Your task to perform on an android device: turn on the 12-hour format for clock Image 0: 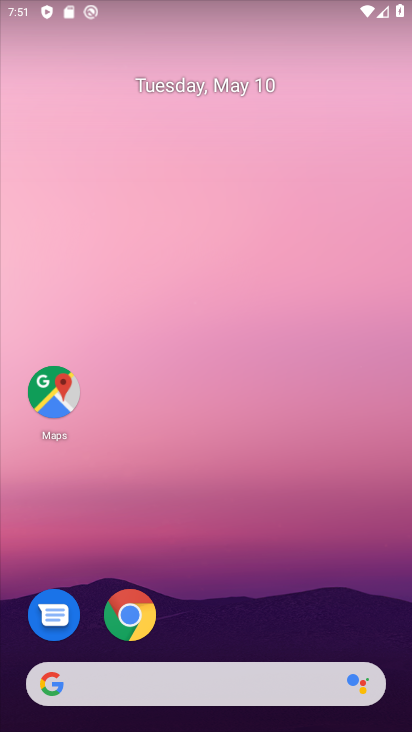
Step 0: drag from (189, 626) to (305, 257)
Your task to perform on an android device: turn on the 12-hour format for clock Image 1: 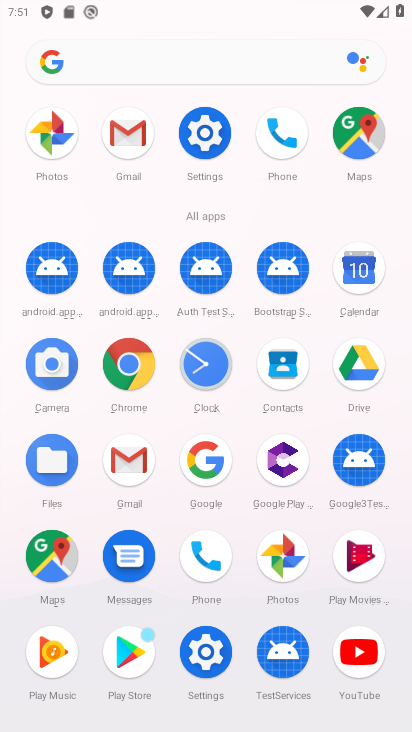
Step 1: click (200, 367)
Your task to perform on an android device: turn on the 12-hour format for clock Image 2: 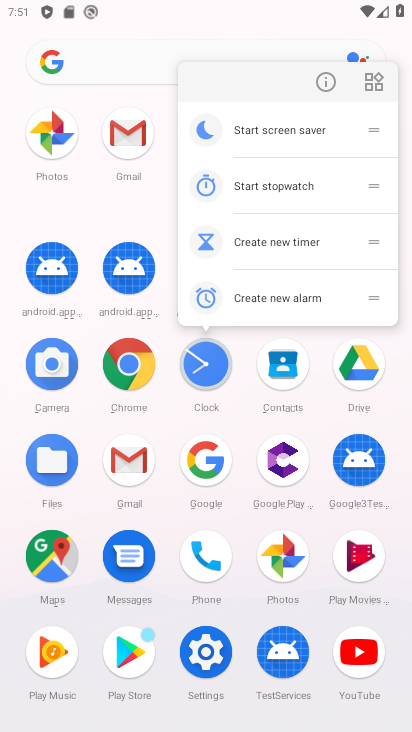
Step 2: click (325, 84)
Your task to perform on an android device: turn on the 12-hour format for clock Image 3: 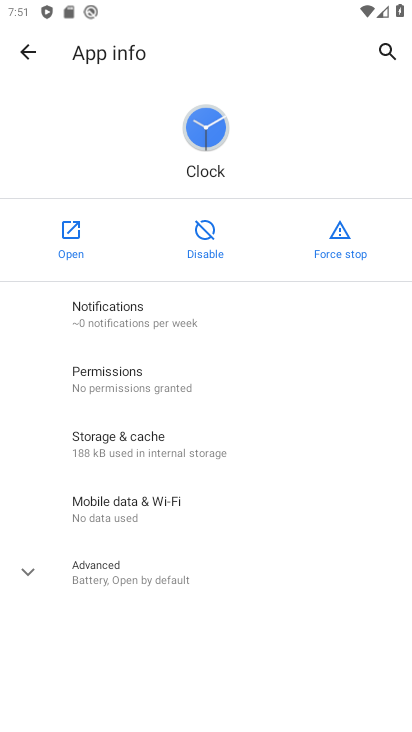
Step 3: click (76, 232)
Your task to perform on an android device: turn on the 12-hour format for clock Image 4: 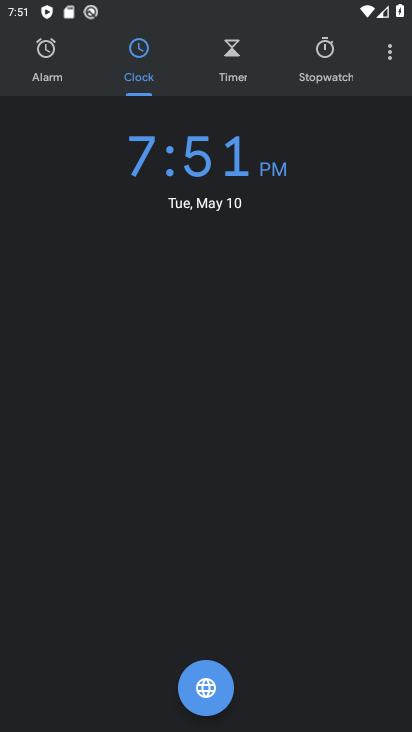
Step 4: click (330, 60)
Your task to perform on an android device: turn on the 12-hour format for clock Image 5: 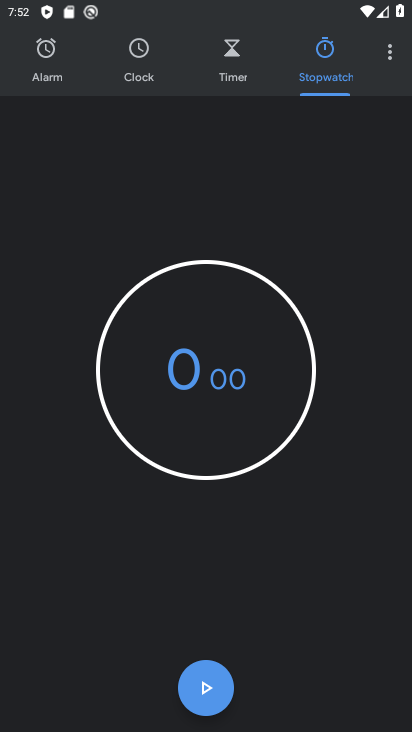
Step 5: click (393, 50)
Your task to perform on an android device: turn on the 12-hour format for clock Image 6: 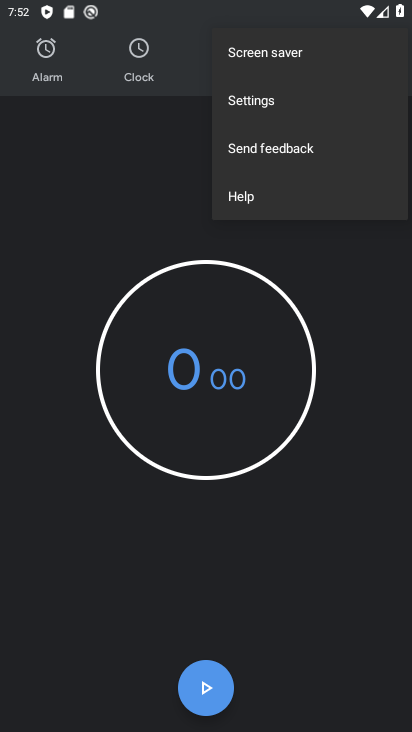
Step 6: click (291, 92)
Your task to perform on an android device: turn on the 12-hour format for clock Image 7: 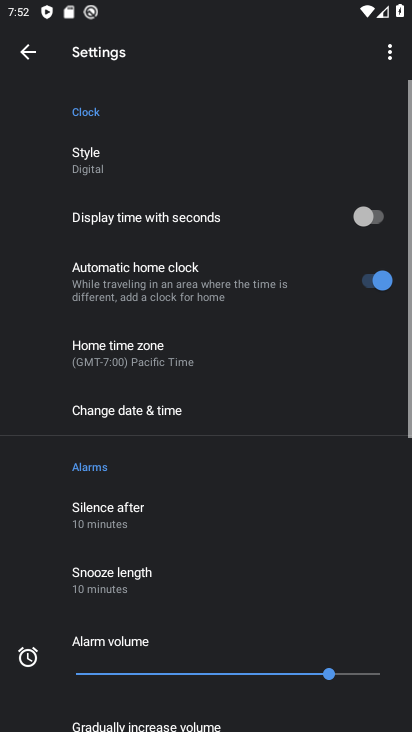
Step 7: drag from (238, 460) to (325, 214)
Your task to perform on an android device: turn on the 12-hour format for clock Image 8: 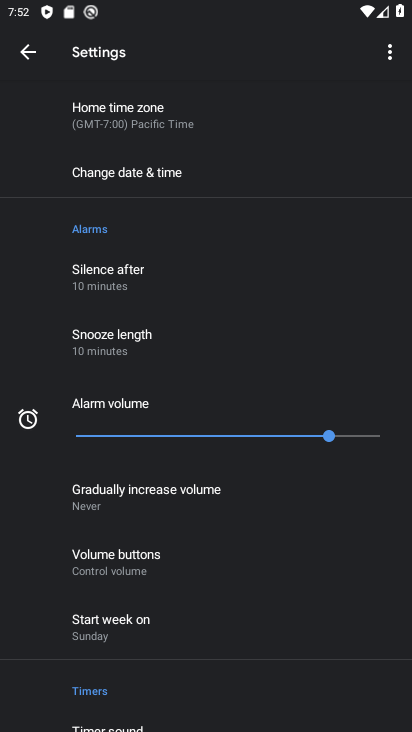
Step 8: drag from (229, 627) to (265, 303)
Your task to perform on an android device: turn on the 12-hour format for clock Image 9: 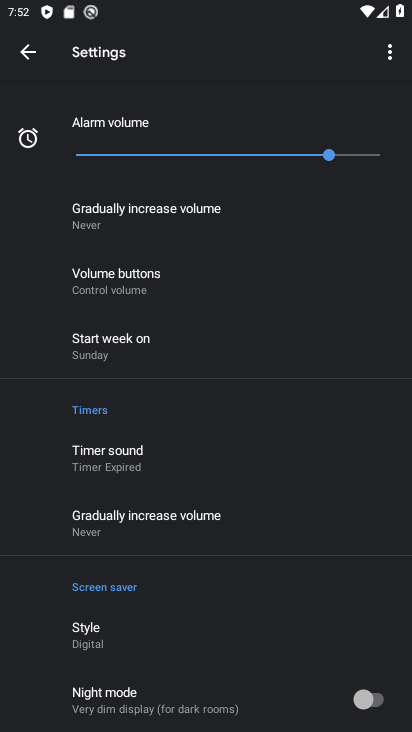
Step 9: drag from (247, 218) to (286, 680)
Your task to perform on an android device: turn on the 12-hour format for clock Image 10: 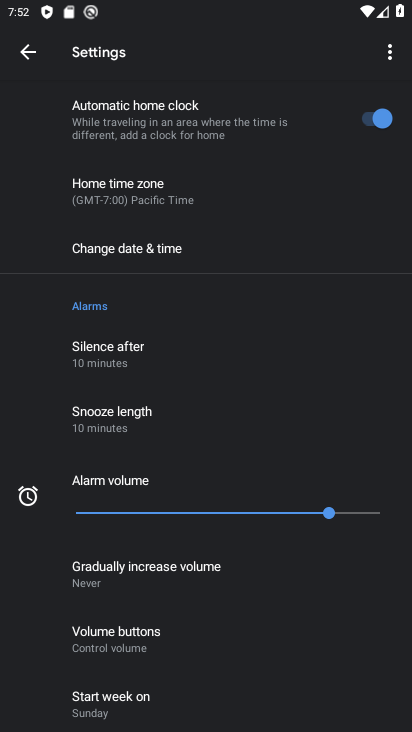
Step 10: click (148, 255)
Your task to perform on an android device: turn on the 12-hour format for clock Image 11: 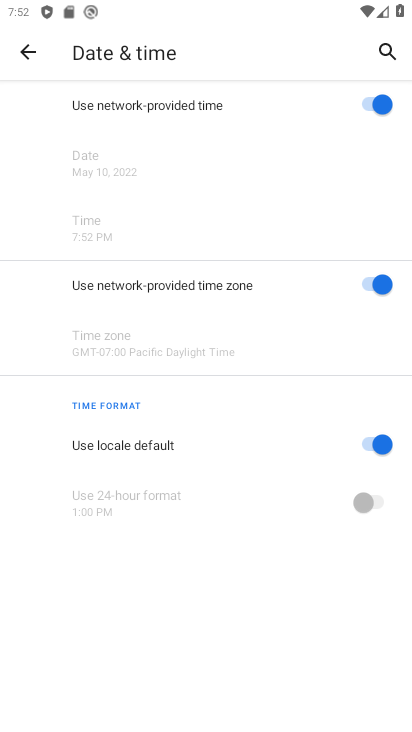
Step 11: task complete